Your task to perform on an android device: make emails show in primary in the gmail app Image 0: 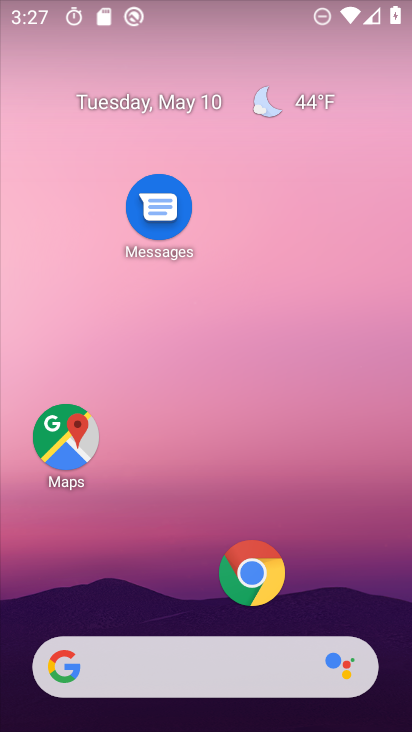
Step 0: drag from (182, 607) to (245, 228)
Your task to perform on an android device: make emails show in primary in the gmail app Image 1: 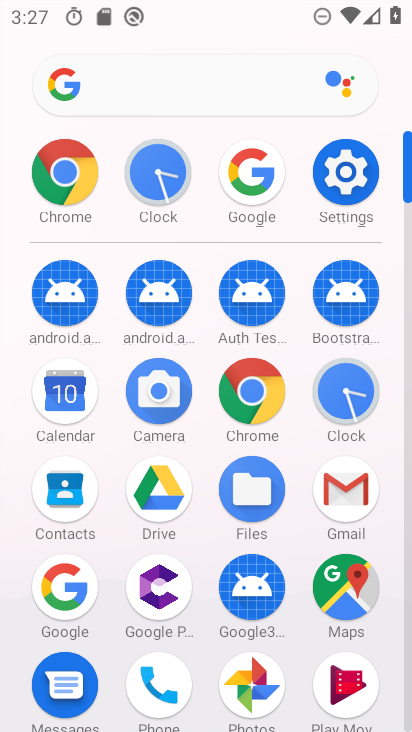
Step 1: click (337, 492)
Your task to perform on an android device: make emails show in primary in the gmail app Image 2: 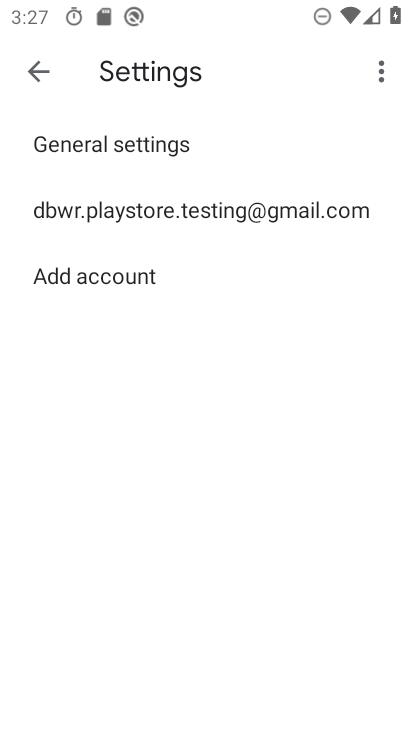
Step 2: click (113, 198)
Your task to perform on an android device: make emails show in primary in the gmail app Image 3: 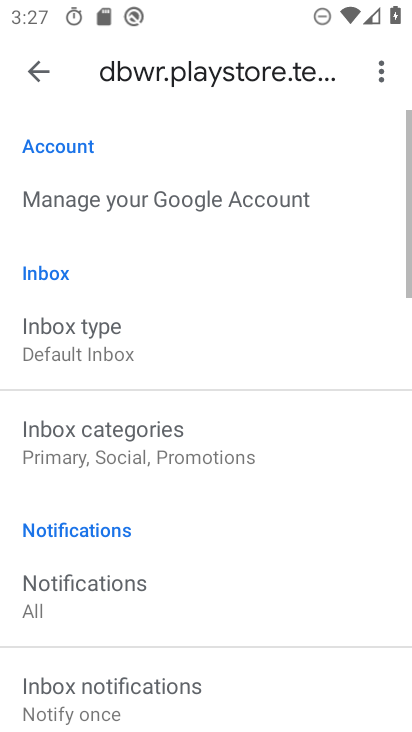
Step 3: drag from (216, 574) to (223, 419)
Your task to perform on an android device: make emails show in primary in the gmail app Image 4: 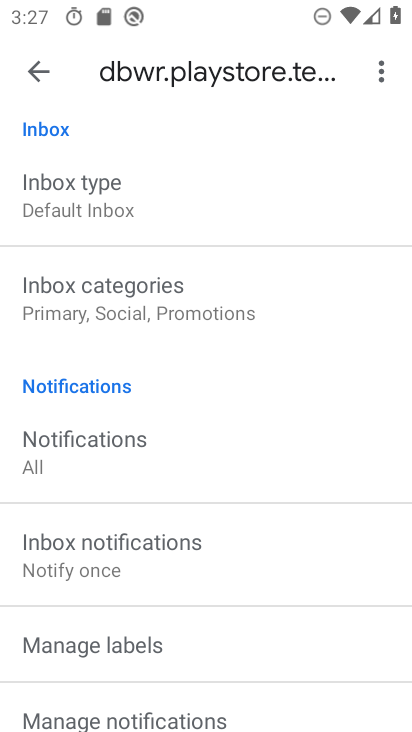
Step 4: click (154, 217)
Your task to perform on an android device: make emails show in primary in the gmail app Image 5: 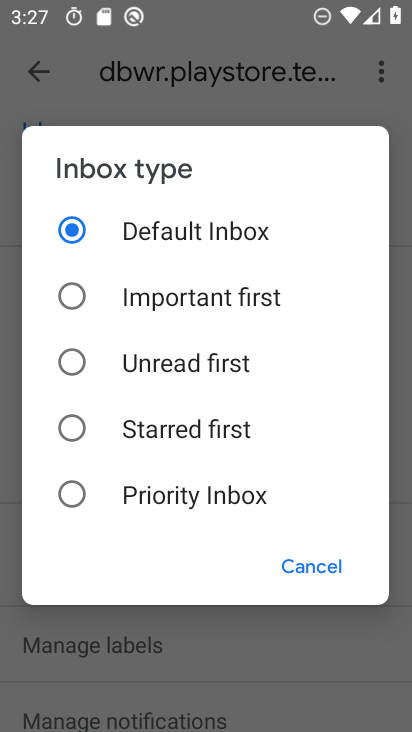
Step 5: task complete